Your task to perform on an android device: Empty the shopping cart on walmart.com. Add "usb-c to usb-b" to the cart on walmart.com Image 0: 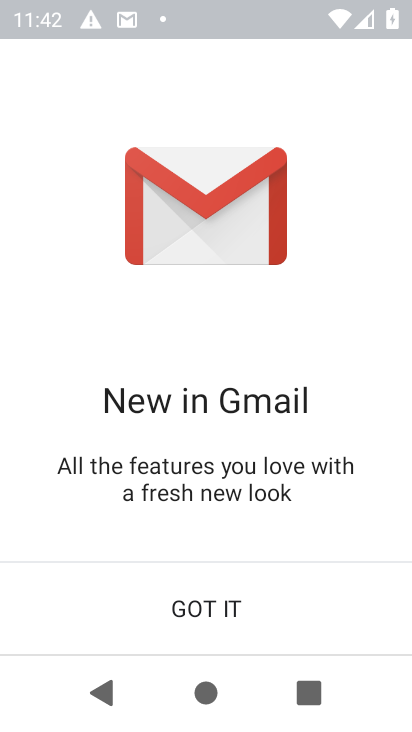
Step 0: click (203, 603)
Your task to perform on an android device: Empty the shopping cart on walmart.com. Add "usb-c to usb-b" to the cart on walmart.com Image 1: 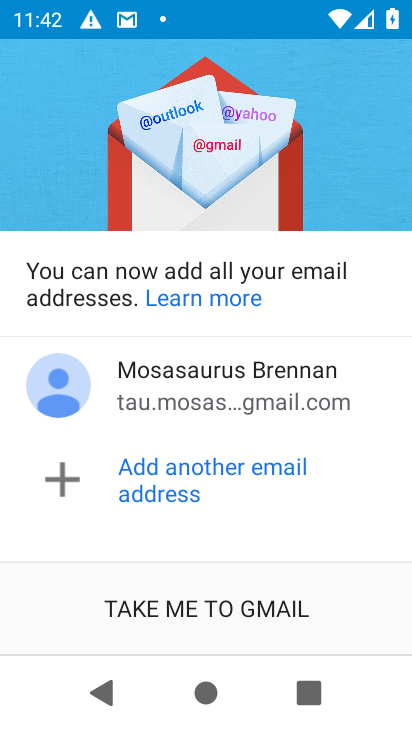
Step 1: press home button
Your task to perform on an android device: Empty the shopping cart on walmart.com. Add "usb-c to usb-b" to the cart on walmart.com Image 2: 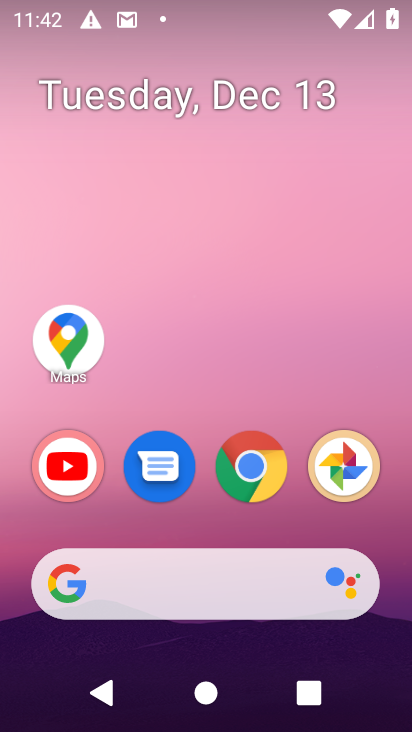
Step 2: drag from (211, 519) to (243, 106)
Your task to perform on an android device: Empty the shopping cart on walmart.com. Add "usb-c to usb-b" to the cart on walmart.com Image 3: 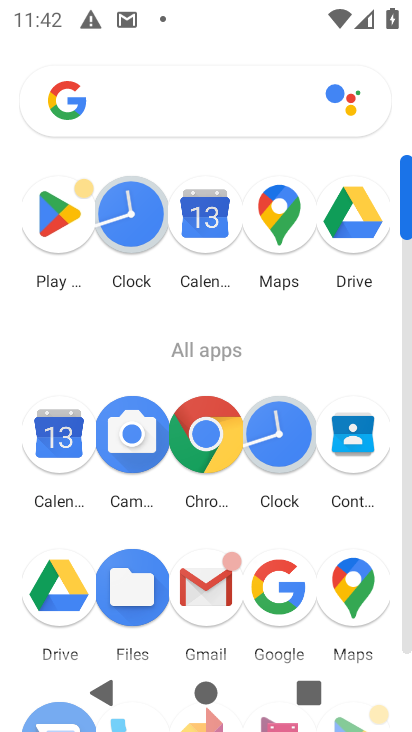
Step 3: click (281, 580)
Your task to perform on an android device: Empty the shopping cart on walmart.com. Add "usb-c to usb-b" to the cart on walmart.com Image 4: 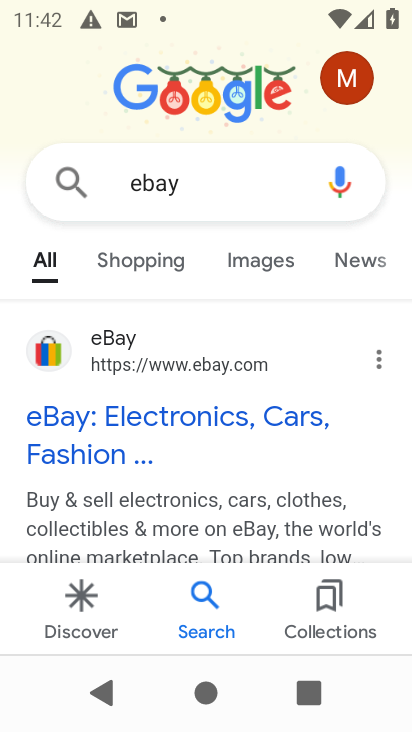
Step 4: click (214, 174)
Your task to perform on an android device: Empty the shopping cart on walmart.com. Add "usb-c to usb-b" to the cart on walmart.com Image 5: 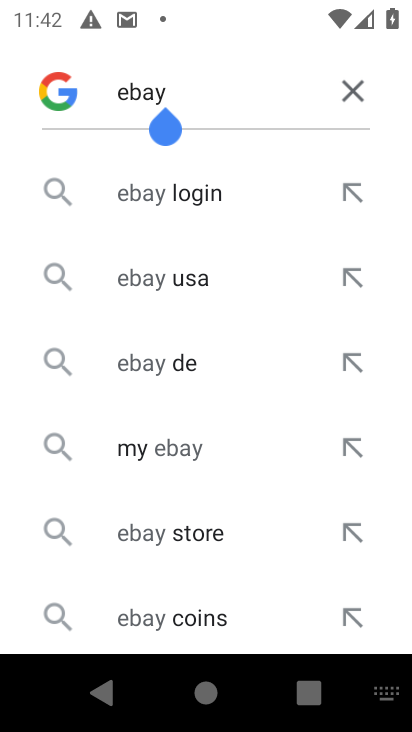
Step 5: drag from (214, 174) to (315, 423)
Your task to perform on an android device: Empty the shopping cart on walmart.com. Add "usb-c to usb-b" to the cart on walmart.com Image 6: 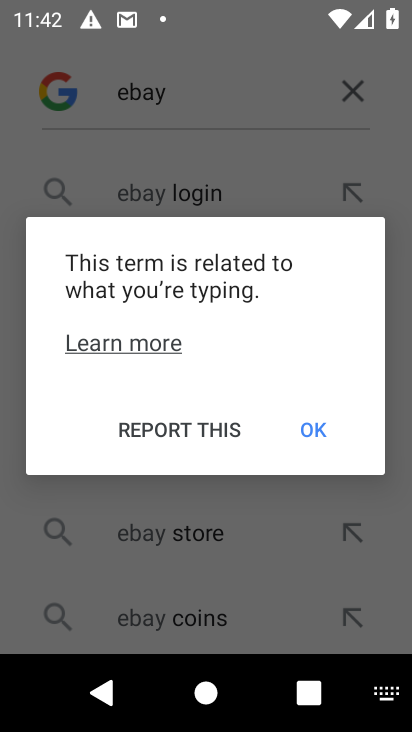
Step 6: click (315, 423)
Your task to perform on an android device: Empty the shopping cart on walmart.com. Add "usb-c to usb-b" to the cart on walmart.com Image 7: 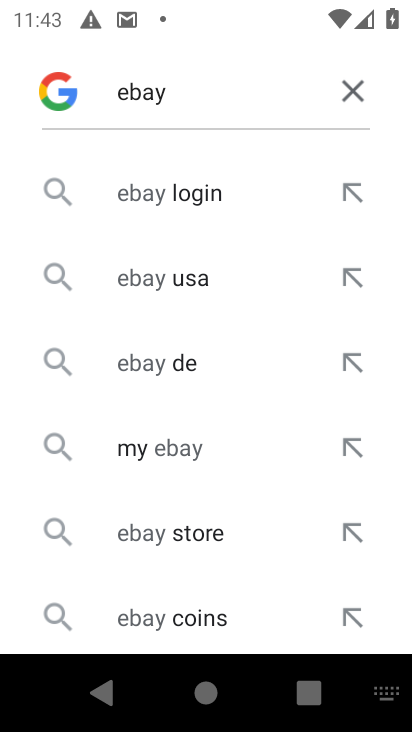
Step 7: click (352, 94)
Your task to perform on an android device: Empty the shopping cart on walmart.com. Add "usb-c to usb-b" to the cart on walmart.com Image 8: 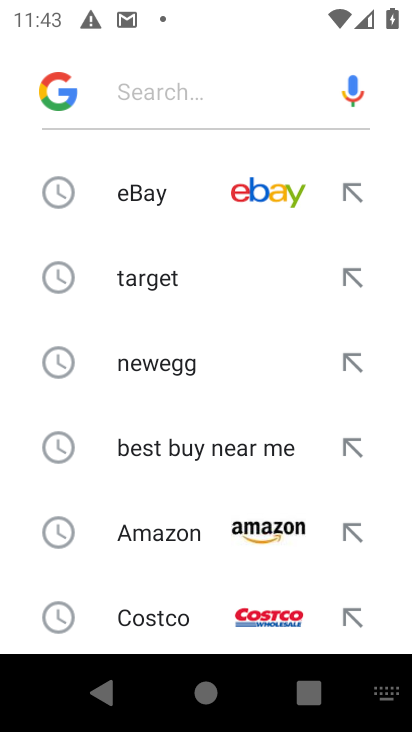
Step 8: type "walmart.com"
Your task to perform on an android device: Empty the shopping cart on walmart.com. Add "usb-c to usb-b" to the cart on walmart.com Image 9: 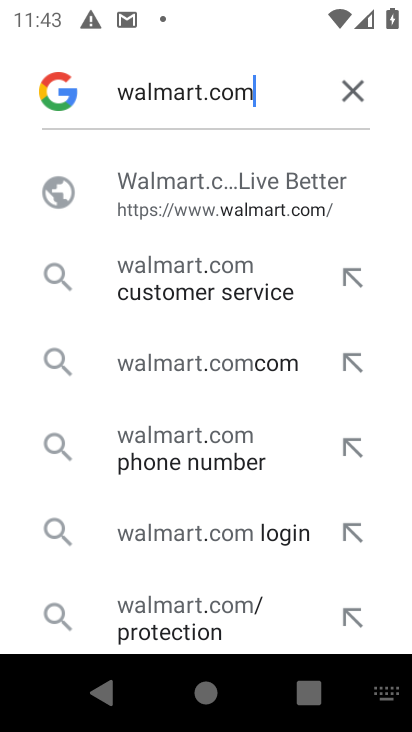
Step 9: click (231, 209)
Your task to perform on an android device: Empty the shopping cart on walmart.com. Add "usb-c to usb-b" to the cart on walmart.com Image 10: 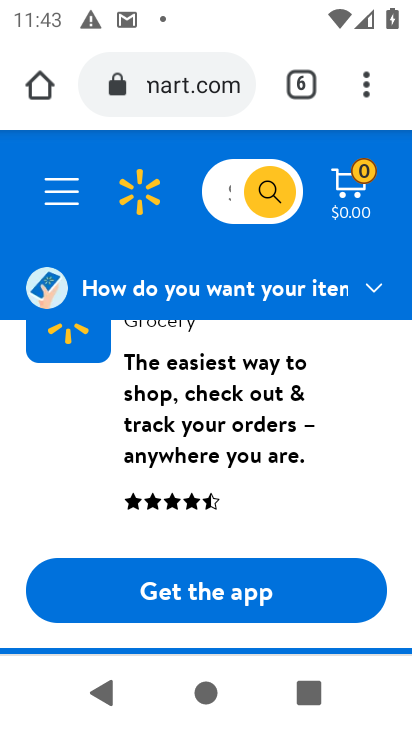
Step 10: click (231, 224)
Your task to perform on an android device: Empty the shopping cart on walmart.com. Add "usb-c to usb-b" to the cart on walmart.com Image 11: 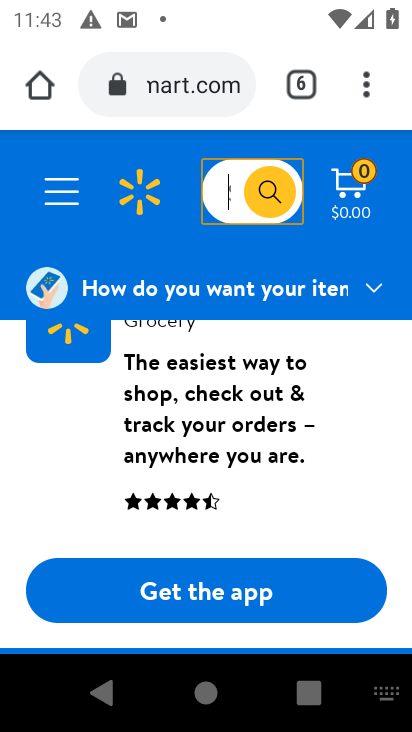
Step 11: click (364, 196)
Your task to perform on an android device: Empty the shopping cart on walmart.com. Add "usb-c to usb-b" to the cart on walmart.com Image 12: 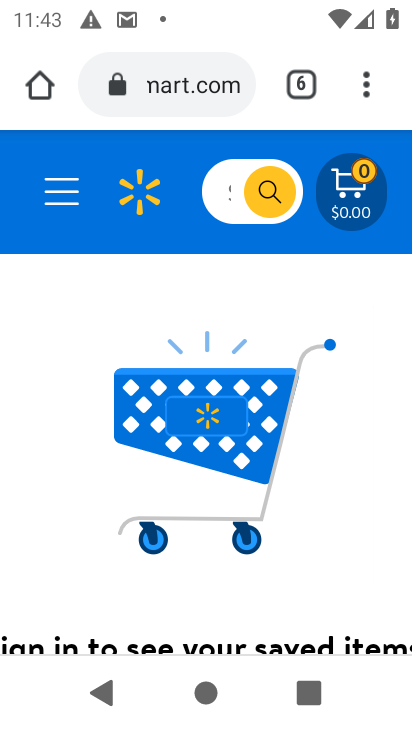
Step 12: click (230, 196)
Your task to perform on an android device: Empty the shopping cart on walmart.com. Add "usb-c to usb-b" to the cart on walmart.com Image 13: 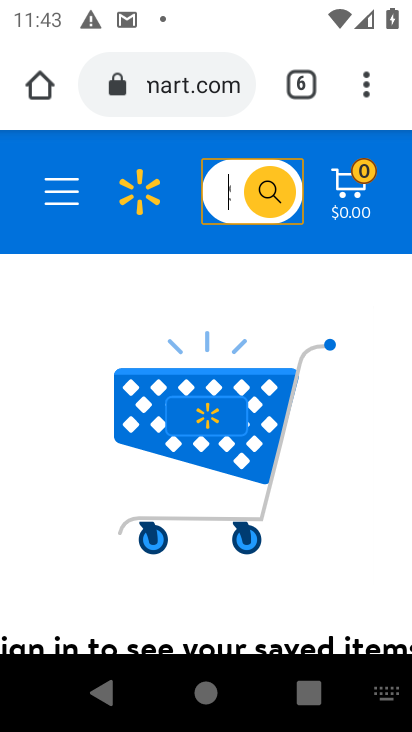
Step 13: type "usb-c to usb-b"
Your task to perform on an android device: Empty the shopping cart on walmart.com. Add "usb-c to usb-b" to the cart on walmart.com Image 14: 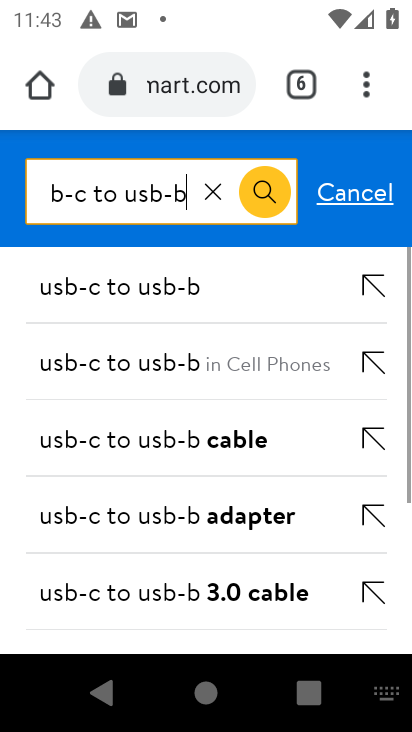
Step 14: click (150, 290)
Your task to perform on an android device: Empty the shopping cart on walmart.com. Add "usb-c to usb-b" to the cart on walmart.com Image 15: 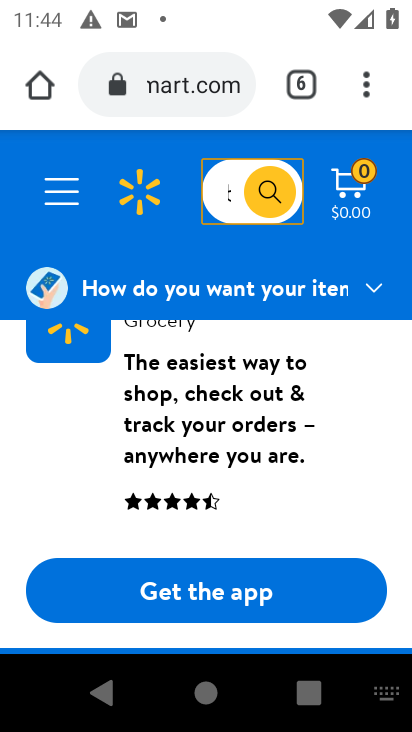
Step 15: drag from (320, 457) to (317, 411)
Your task to perform on an android device: Empty the shopping cart on walmart.com. Add "usb-c to usb-b" to the cart on walmart.com Image 16: 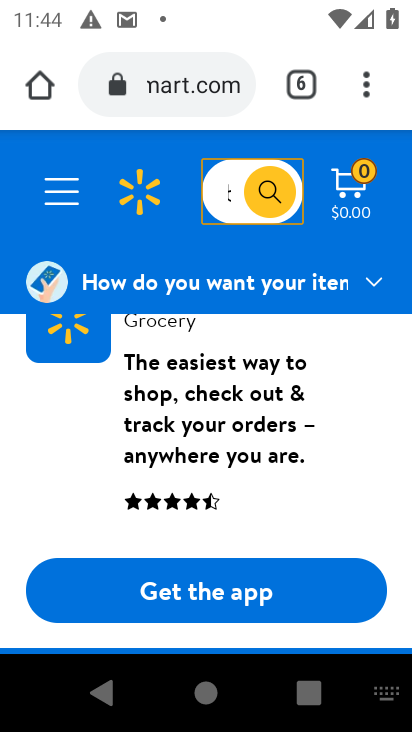
Step 16: drag from (317, 411) to (361, 229)
Your task to perform on an android device: Empty the shopping cart on walmart.com. Add "usb-c to usb-b" to the cart on walmart.com Image 17: 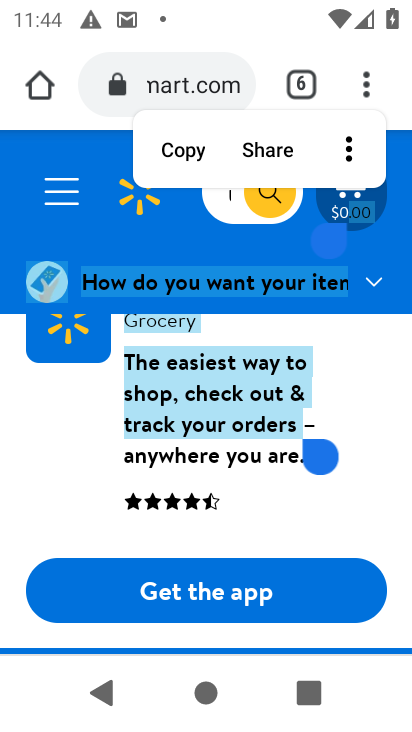
Step 17: drag from (340, 459) to (329, 312)
Your task to perform on an android device: Empty the shopping cart on walmart.com. Add "usb-c to usb-b" to the cart on walmart.com Image 18: 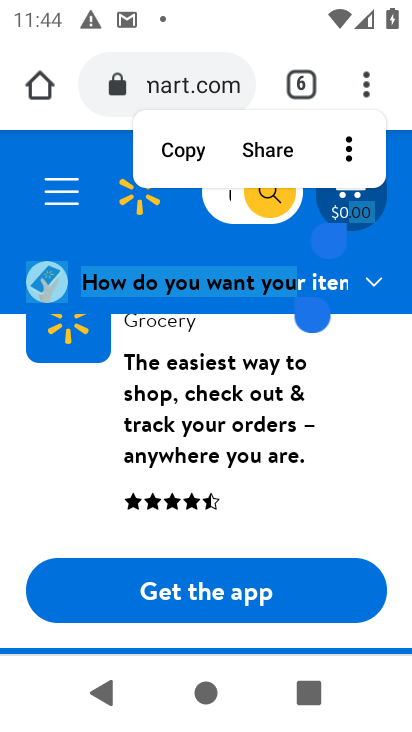
Step 18: drag from (231, 482) to (215, 234)
Your task to perform on an android device: Empty the shopping cart on walmart.com. Add "usb-c to usb-b" to the cart on walmart.com Image 19: 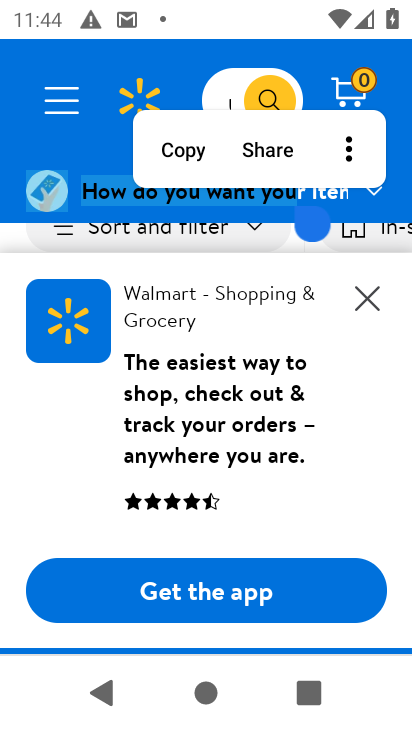
Step 19: click (364, 294)
Your task to perform on an android device: Empty the shopping cart on walmart.com. Add "usb-c to usb-b" to the cart on walmart.com Image 20: 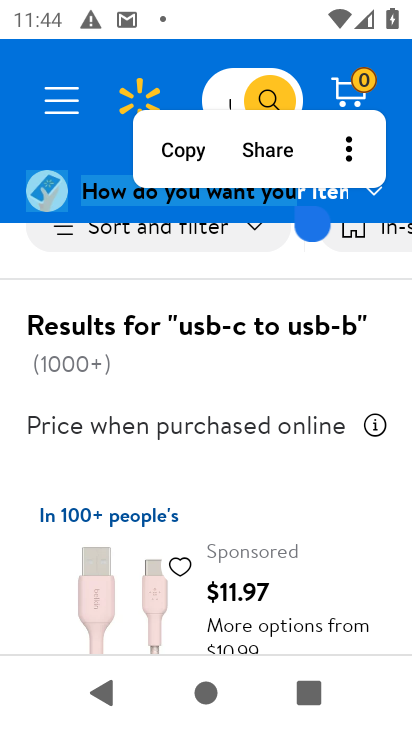
Step 20: drag from (253, 440) to (253, 338)
Your task to perform on an android device: Empty the shopping cart on walmart.com. Add "usb-c to usb-b" to the cart on walmart.com Image 21: 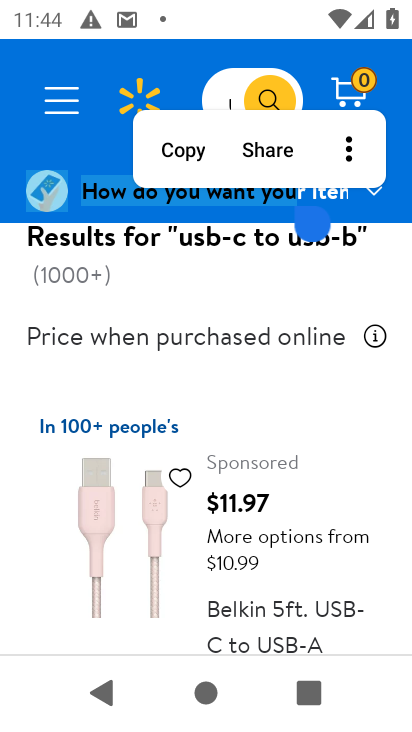
Step 21: click (244, 570)
Your task to perform on an android device: Empty the shopping cart on walmart.com. Add "usb-c to usb-b" to the cart on walmart.com Image 22: 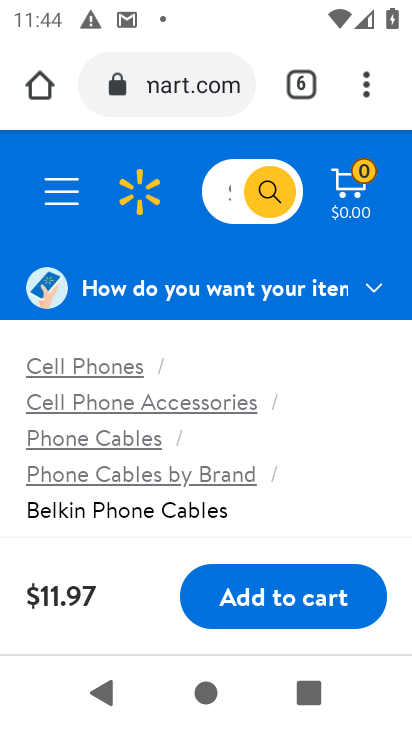
Step 22: click (255, 598)
Your task to perform on an android device: Empty the shopping cart on walmart.com. Add "usb-c to usb-b" to the cart on walmart.com Image 23: 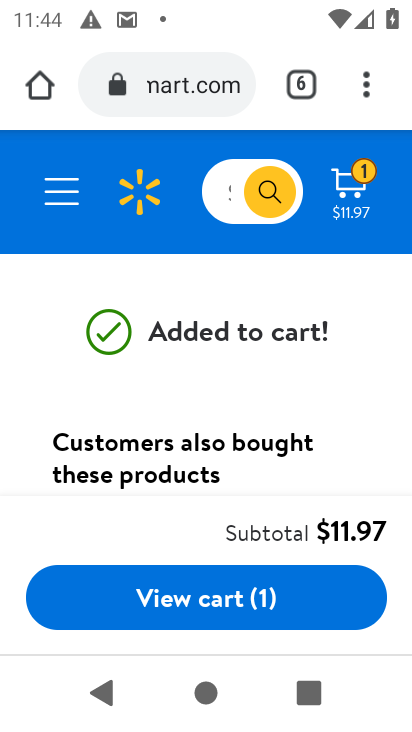
Step 23: task complete